Your task to perform on an android device: Is it going to rain tomorrow? Image 0: 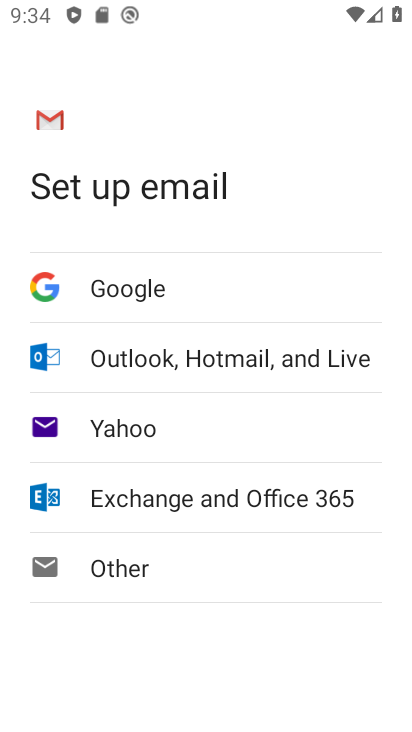
Step 0: press home button
Your task to perform on an android device: Is it going to rain tomorrow? Image 1: 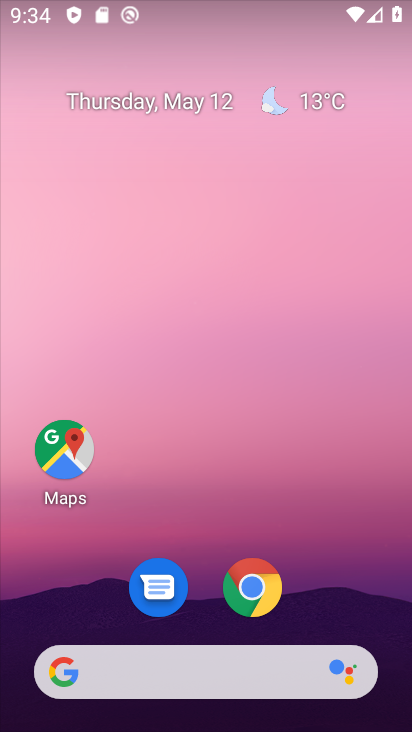
Step 1: drag from (337, 609) to (285, 81)
Your task to perform on an android device: Is it going to rain tomorrow? Image 2: 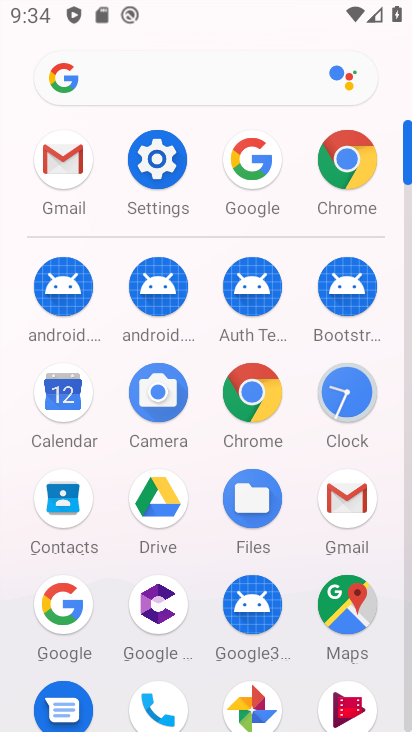
Step 2: press home button
Your task to perform on an android device: Is it going to rain tomorrow? Image 3: 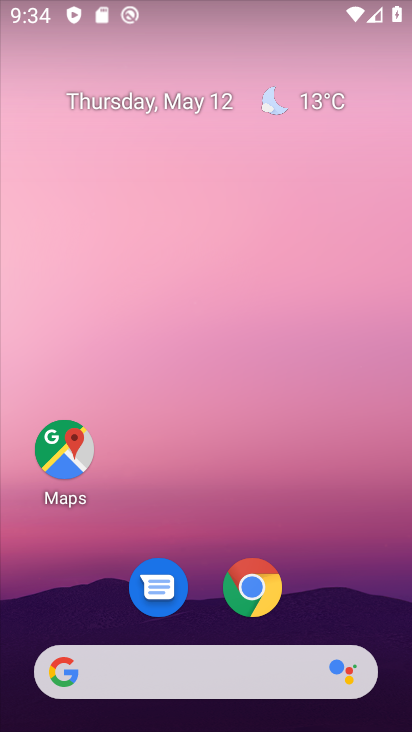
Step 3: click (317, 103)
Your task to perform on an android device: Is it going to rain tomorrow? Image 4: 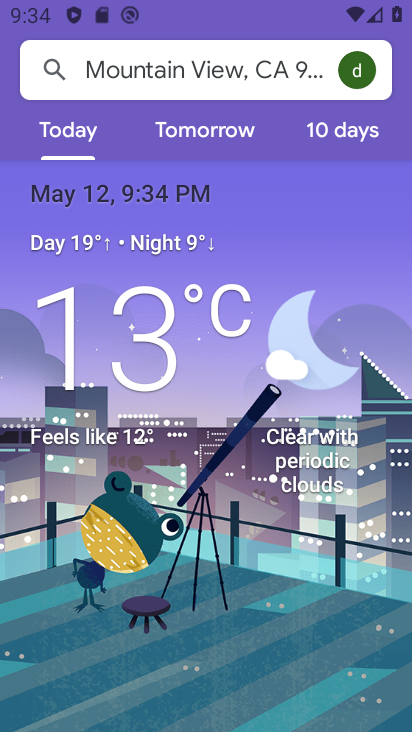
Step 4: task complete